Your task to perform on an android device: Open Google Maps Image 0: 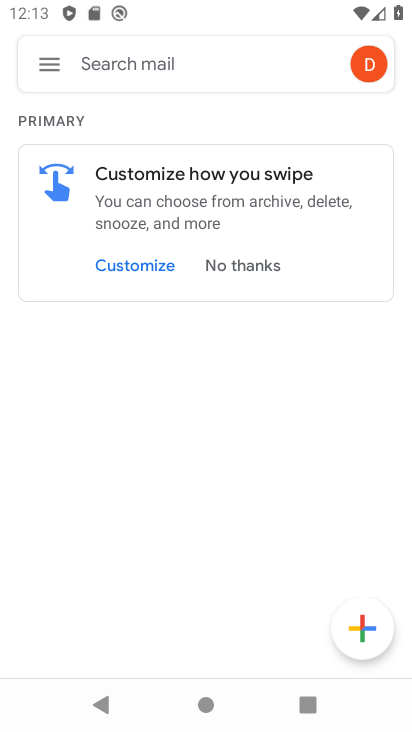
Step 0: press home button
Your task to perform on an android device: Open Google Maps Image 1: 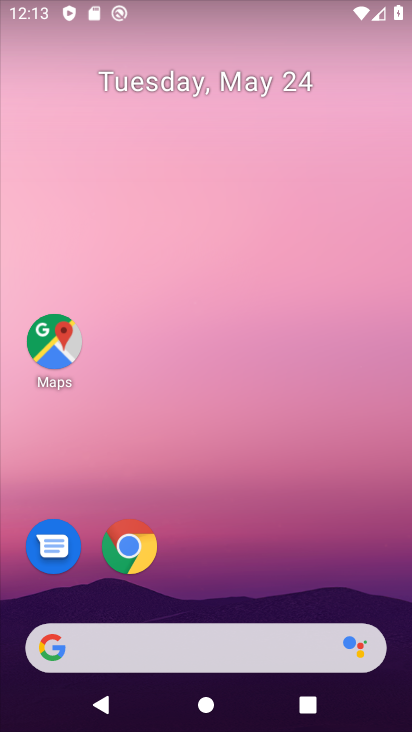
Step 1: drag from (193, 652) to (349, 12)
Your task to perform on an android device: Open Google Maps Image 2: 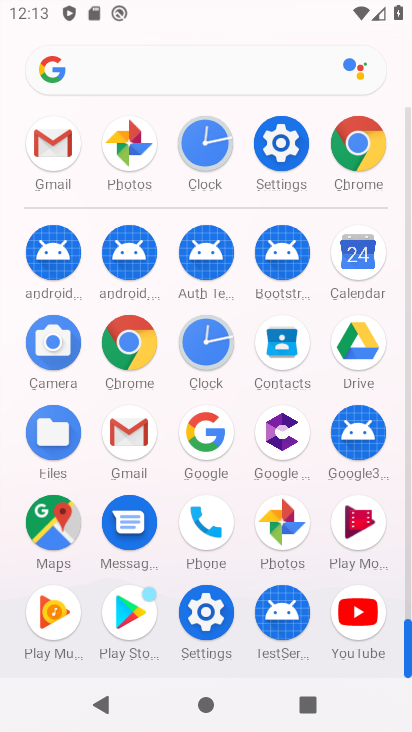
Step 2: click (49, 518)
Your task to perform on an android device: Open Google Maps Image 3: 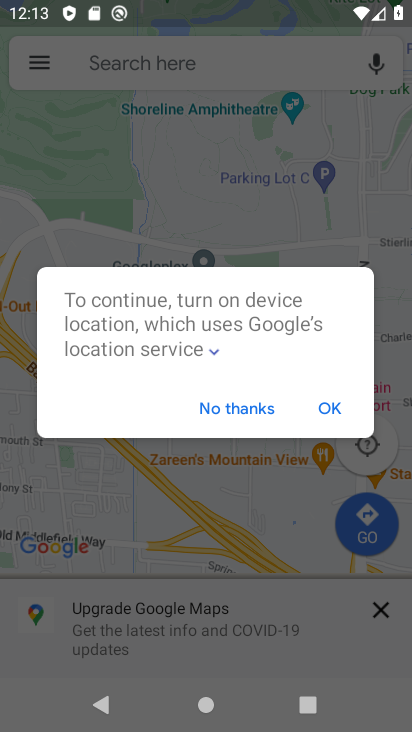
Step 3: click (380, 610)
Your task to perform on an android device: Open Google Maps Image 4: 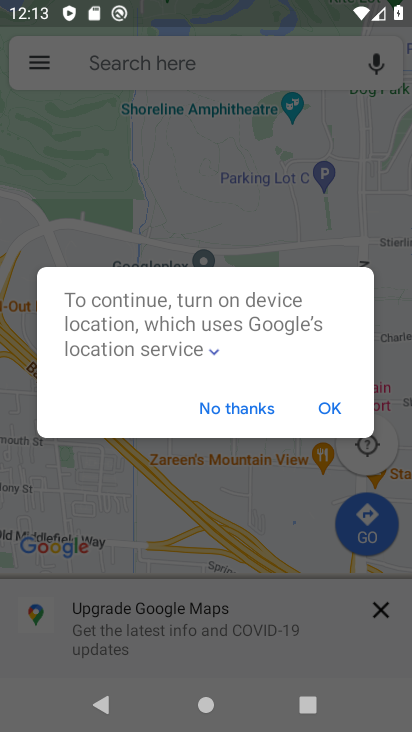
Step 4: click (225, 400)
Your task to perform on an android device: Open Google Maps Image 5: 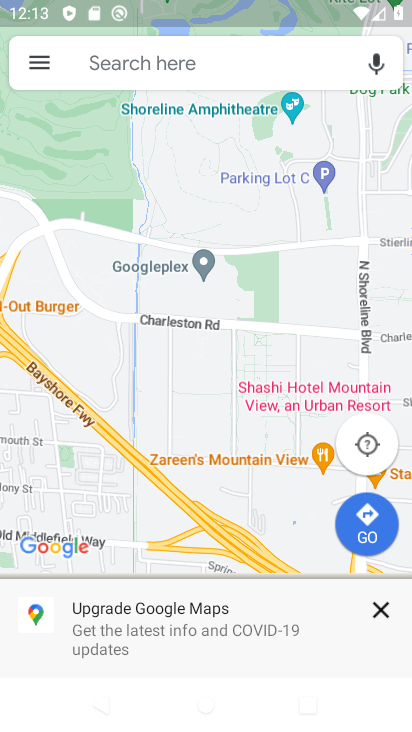
Step 5: task complete